Your task to perform on an android device: Open Google Chrome Image 0: 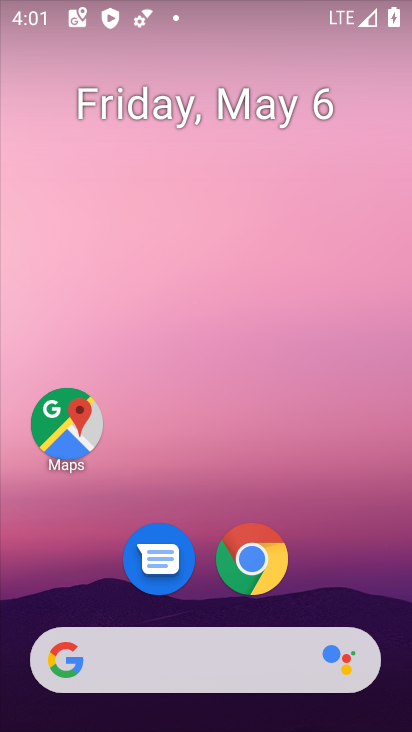
Step 0: click (247, 566)
Your task to perform on an android device: Open Google Chrome Image 1: 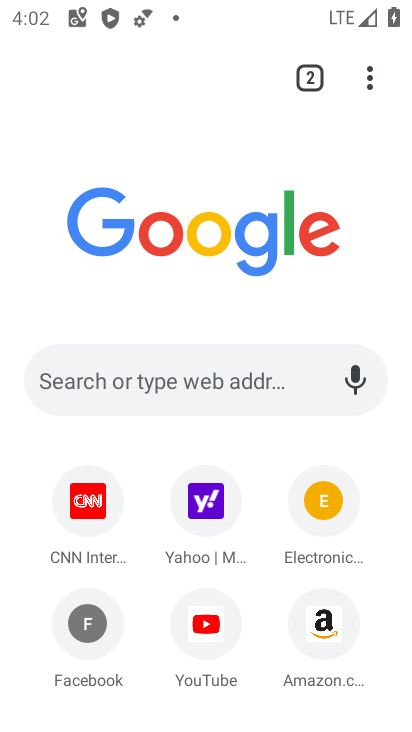
Step 1: task complete